Your task to perform on an android device: Search for macbook pro 13 inch on target, select the first entry, add it to the cart, then select checkout. Image 0: 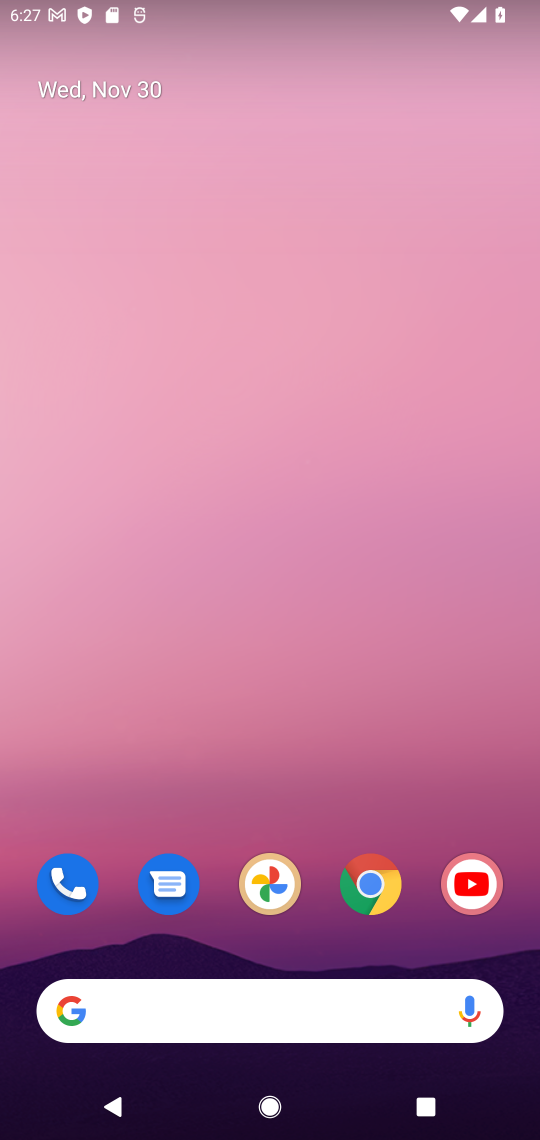
Step 0: click (366, 908)
Your task to perform on an android device: Search for macbook pro 13 inch on target, select the first entry, add it to the cart, then select checkout. Image 1: 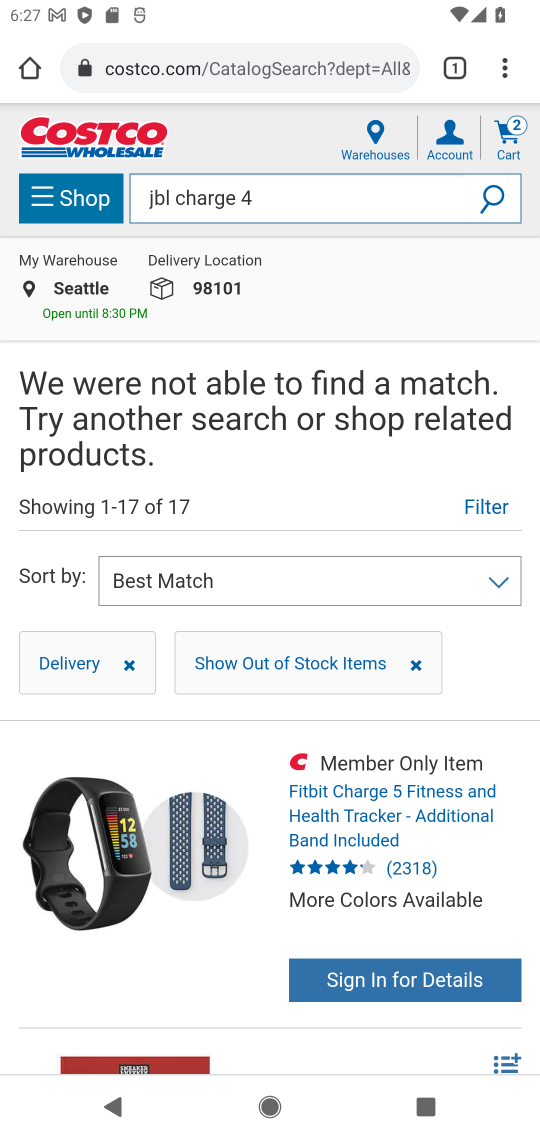
Step 1: click (257, 64)
Your task to perform on an android device: Search for macbook pro 13 inch on target, select the first entry, add it to the cart, then select checkout. Image 2: 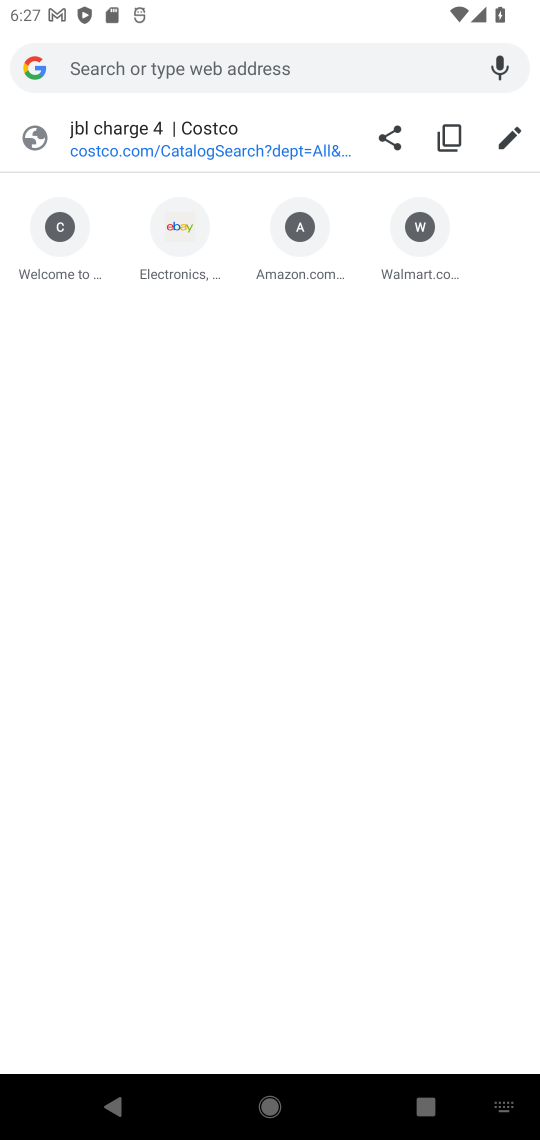
Step 2: type "target.com"
Your task to perform on an android device: Search for macbook pro 13 inch on target, select the first entry, add it to the cart, then select checkout. Image 3: 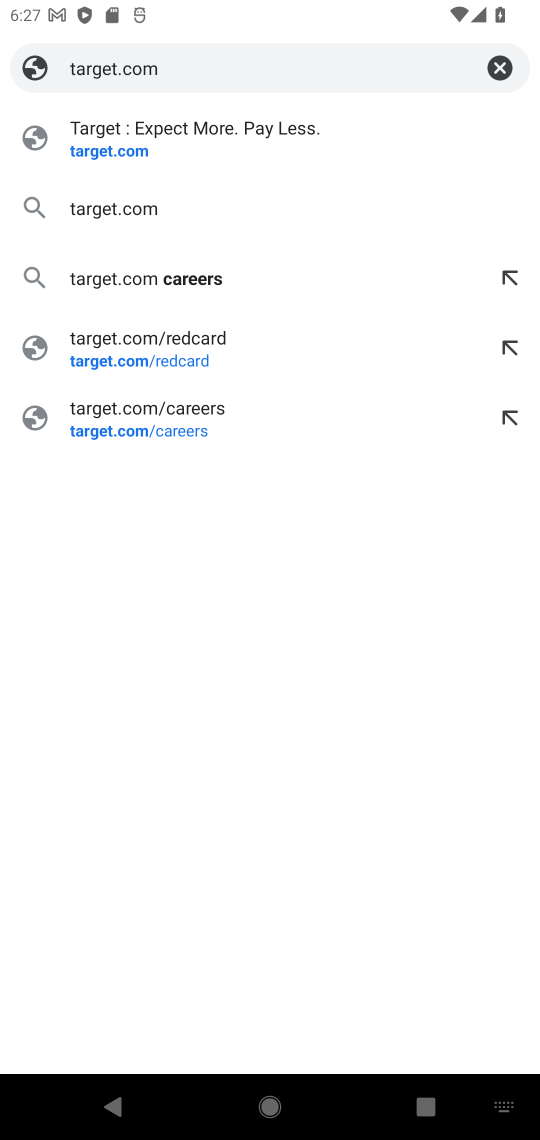
Step 3: click (100, 142)
Your task to perform on an android device: Search for macbook pro 13 inch on target, select the first entry, add it to the cart, then select checkout. Image 4: 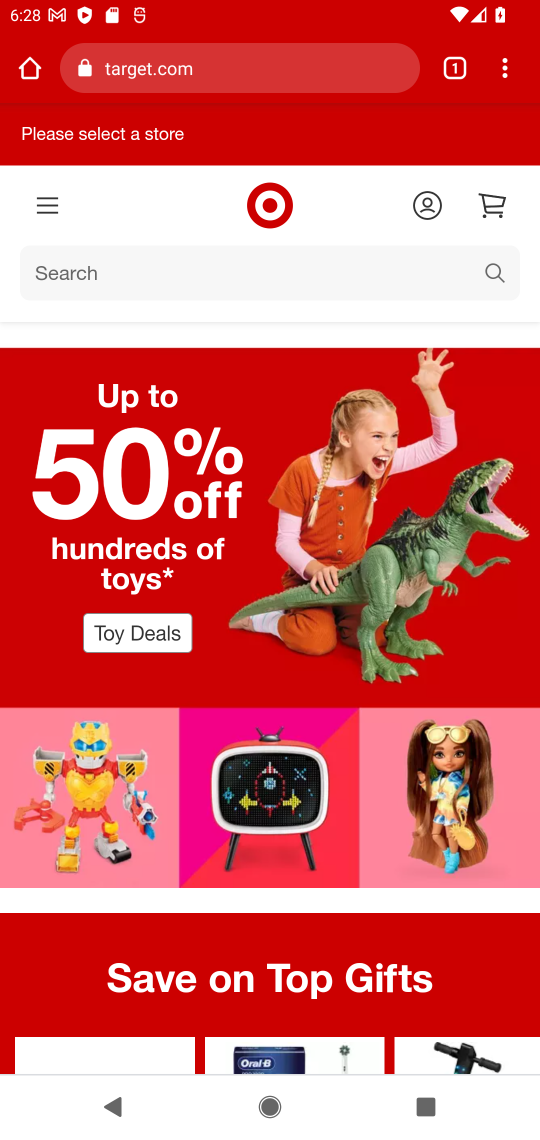
Step 4: click (77, 284)
Your task to perform on an android device: Search for macbook pro 13 inch on target, select the first entry, add it to the cart, then select checkout. Image 5: 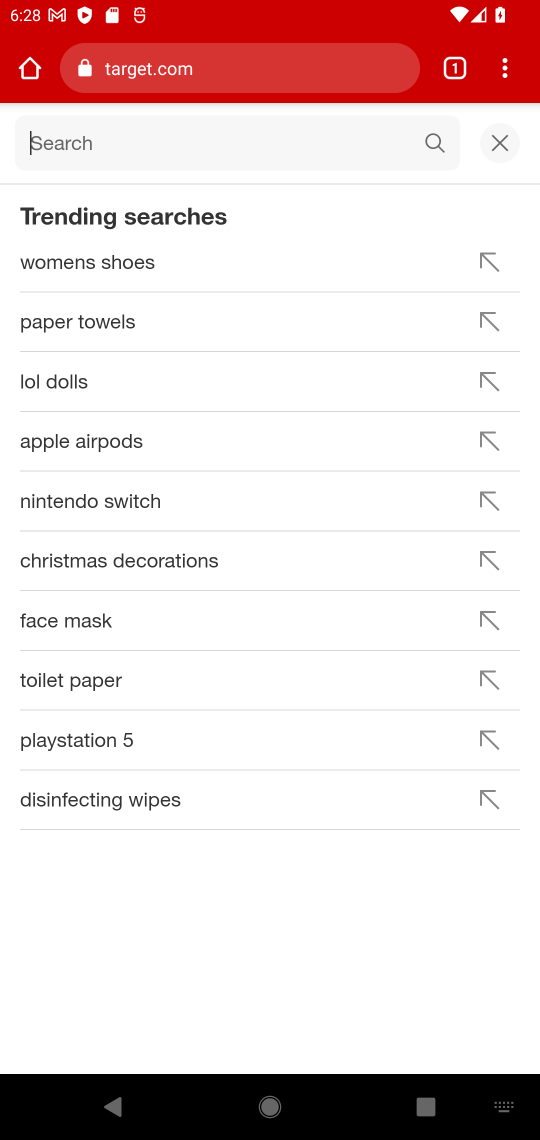
Step 5: type "macbook pro 13 inch"
Your task to perform on an android device: Search for macbook pro 13 inch on target, select the first entry, add it to the cart, then select checkout. Image 6: 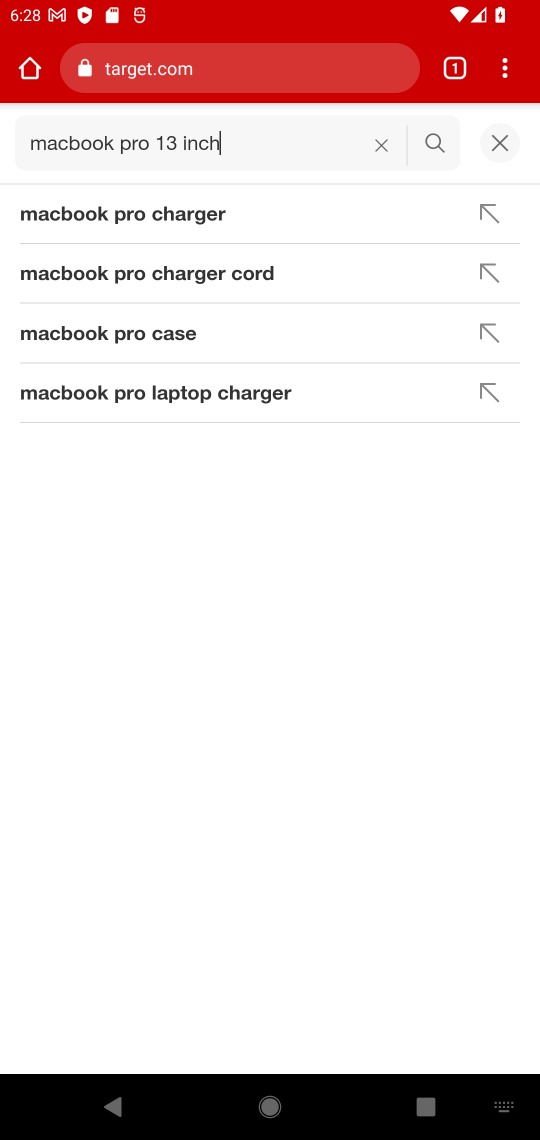
Step 6: click (441, 145)
Your task to perform on an android device: Search for macbook pro 13 inch on target, select the first entry, add it to the cart, then select checkout. Image 7: 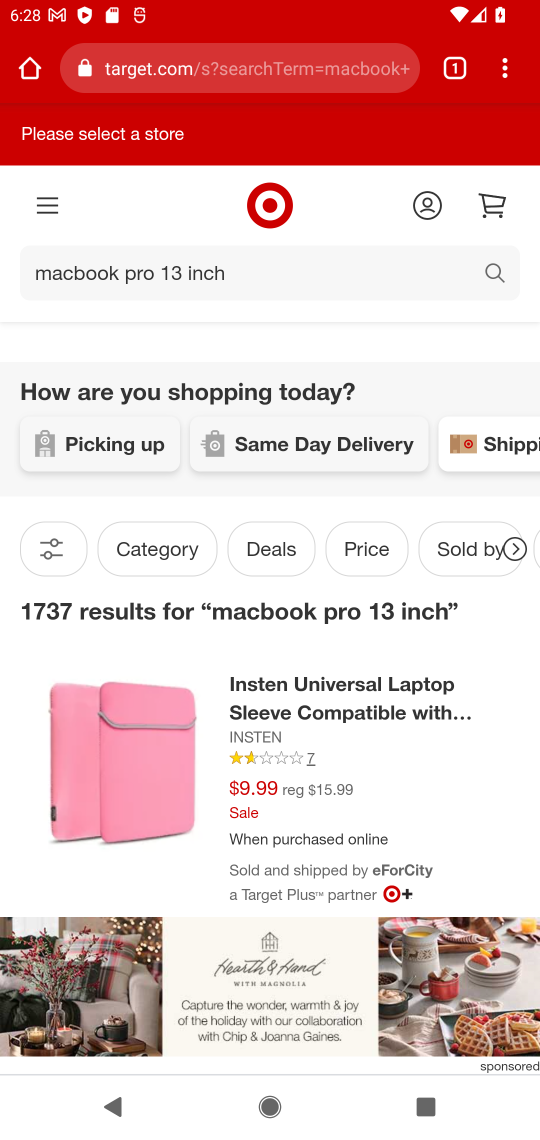
Step 7: drag from (296, 779) to (258, 448)
Your task to perform on an android device: Search for macbook pro 13 inch on target, select the first entry, add it to the cart, then select checkout. Image 8: 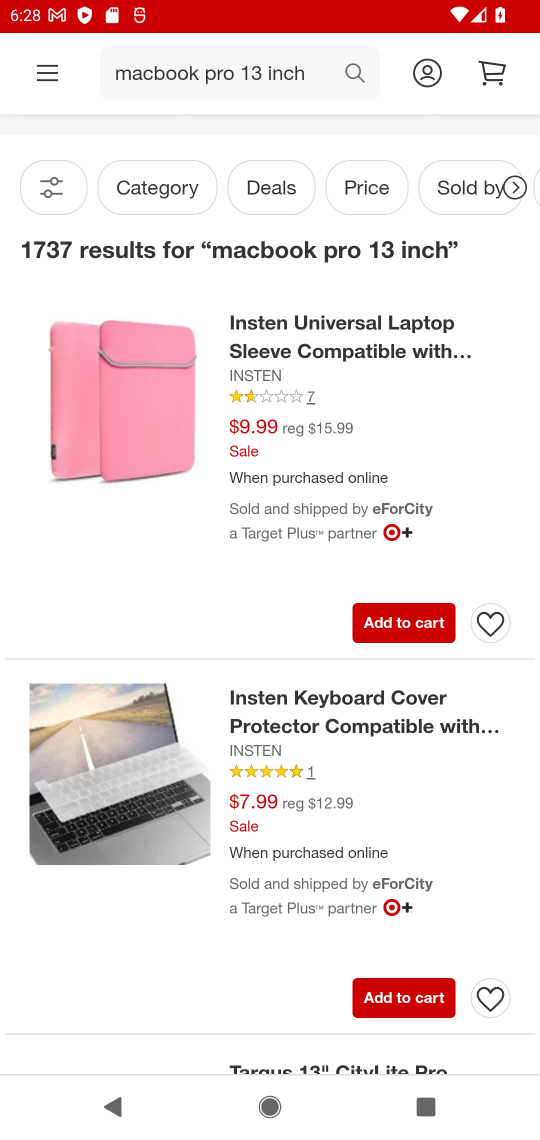
Step 8: click (321, 365)
Your task to perform on an android device: Search for macbook pro 13 inch on target, select the first entry, add it to the cart, then select checkout. Image 9: 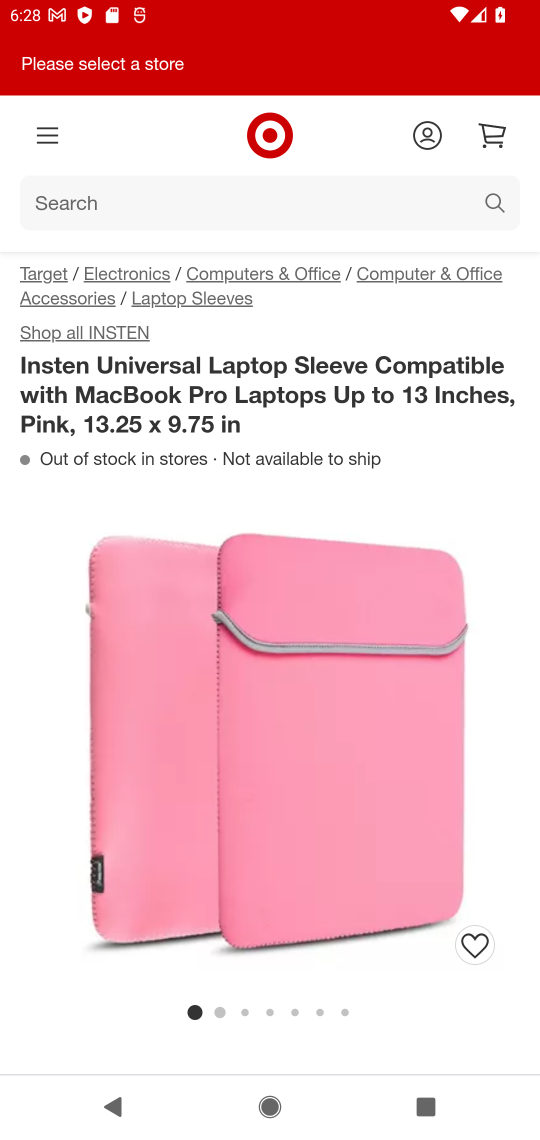
Step 9: drag from (303, 686) to (293, 279)
Your task to perform on an android device: Search for macbook pro 13 inch on target, select the first entry, add it to the cart, then select checkout. Image 10: 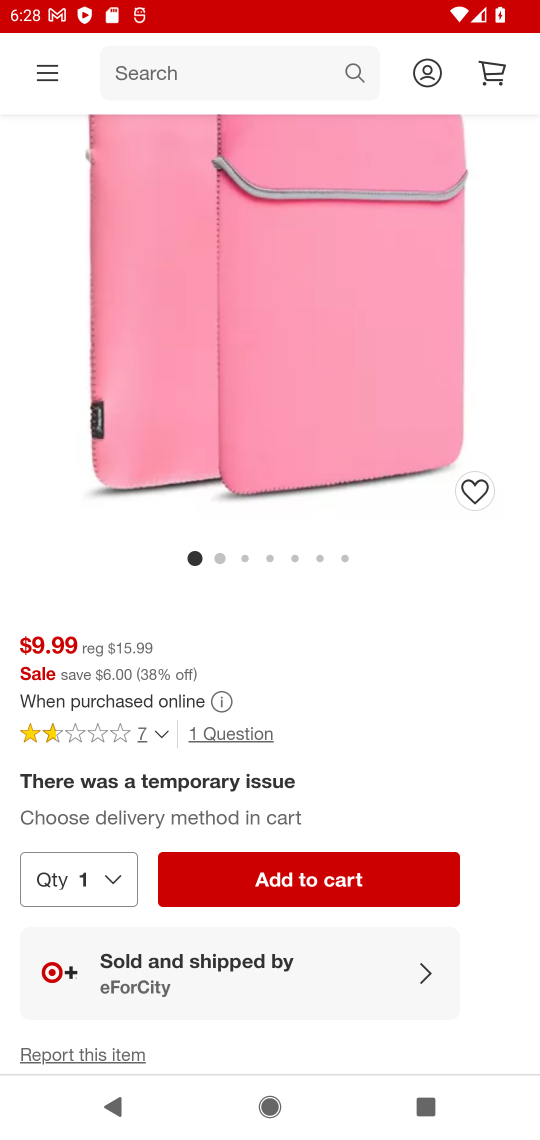
Step 10: click (330, 885)
Your task to perform on an android device: Search for macbook pro 13 inch on target, select the first entry, add it to the cart, then select checkout. Image 11: 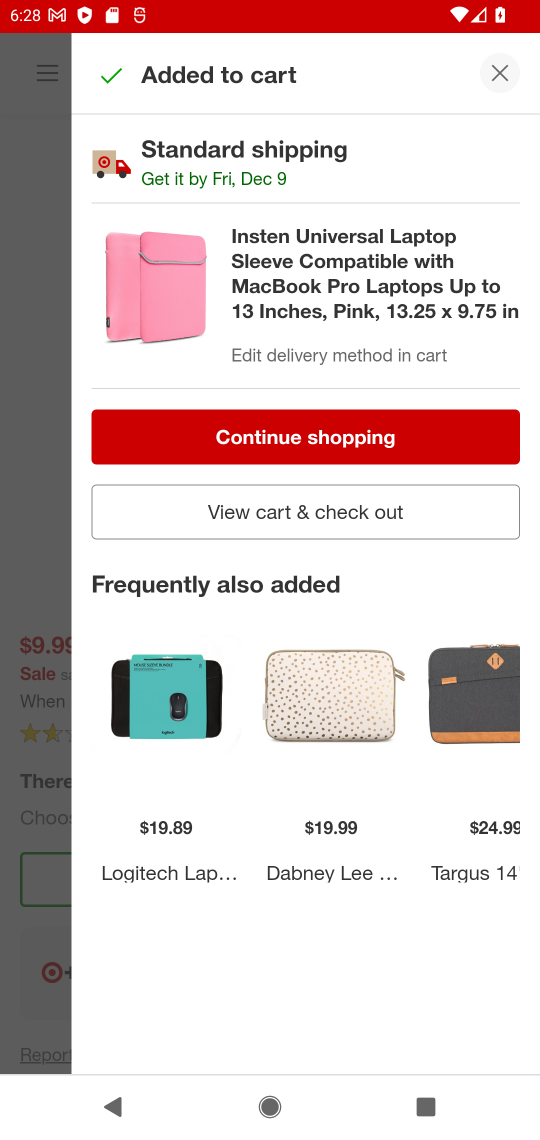
Step 11: click (285, 513)
Your task to perform on an android device: Search for macbook pro 13 inch on target, select the first entry, add it to the cart, then select checkout. Image 12: 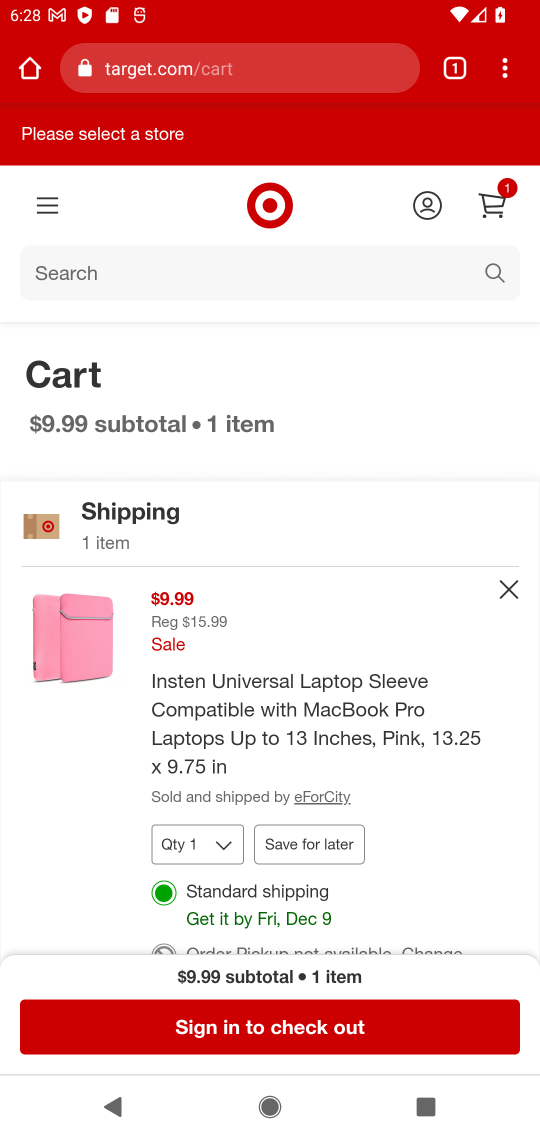
Step 12: click (249, 1022)
Your task to perform on an android device: Search for macbook pro 13 inch on target, select the first entry, add it to the cart, then select checkout. Image 13: 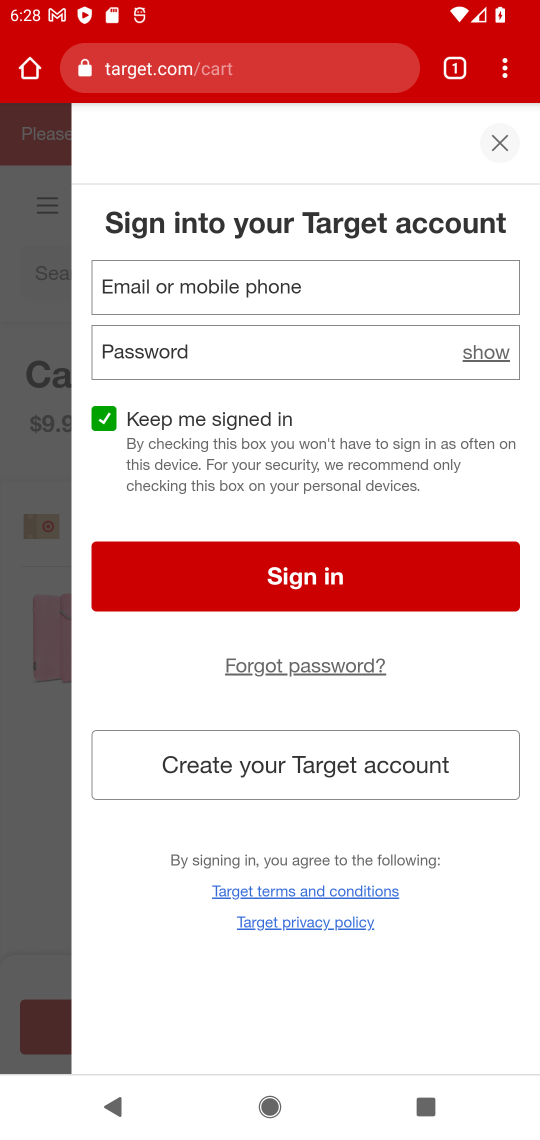
Step 13: task complete